Your task to perform on an android device: toggle pop-ups in chrome Image 0: 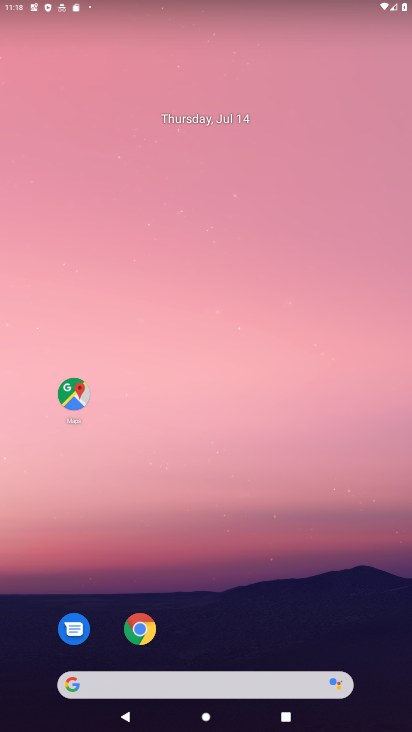
Step 0: press home button
Your task to perform on an android device: toggle pop-ups in chrome Image 1: 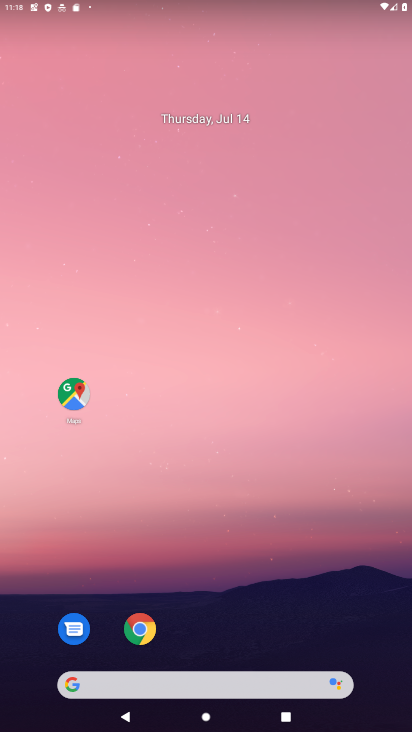
Step 1: click (136, 636)
Your task to perform on an android device: toggle pop-ups in chrome Image 2: 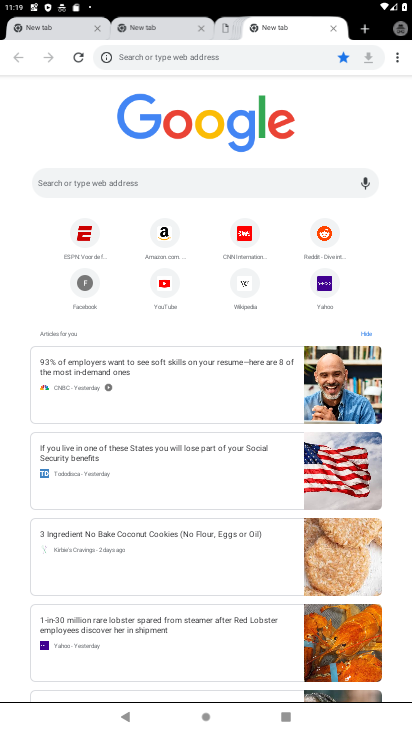
Step 2: drag from (395, 59) to (266, 262)
Your task to perform on an android device: toggle pop-ups in chrome Image 3: 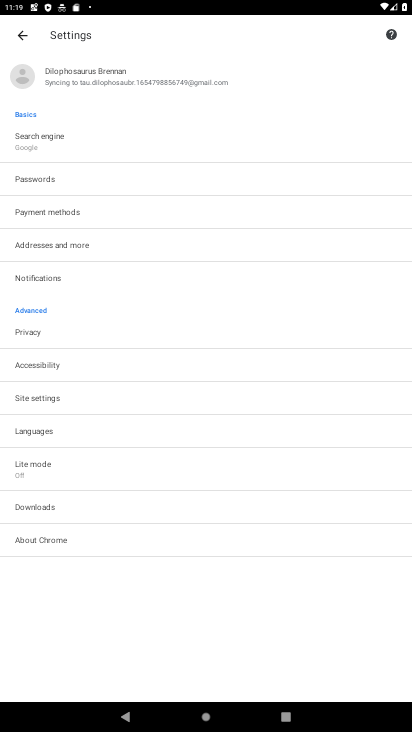
Step 3: click (13, 392)
Your task to perform on an android device: toggle pop-ups in chrome Image 4: 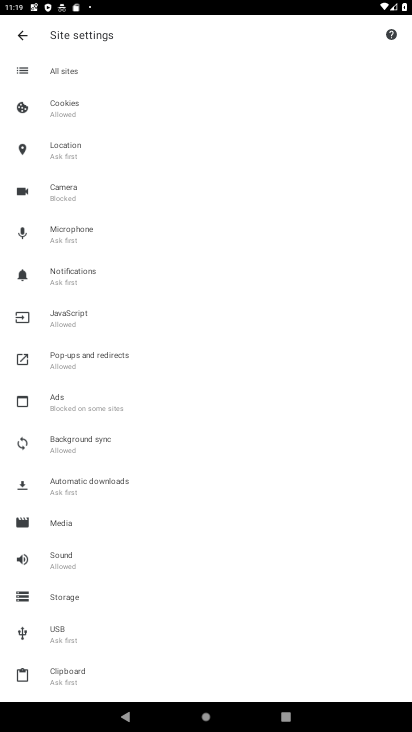
Step 4: click (55, 365)
Your task to perform on an android device: toggle pop-ups in chrome Image 5: 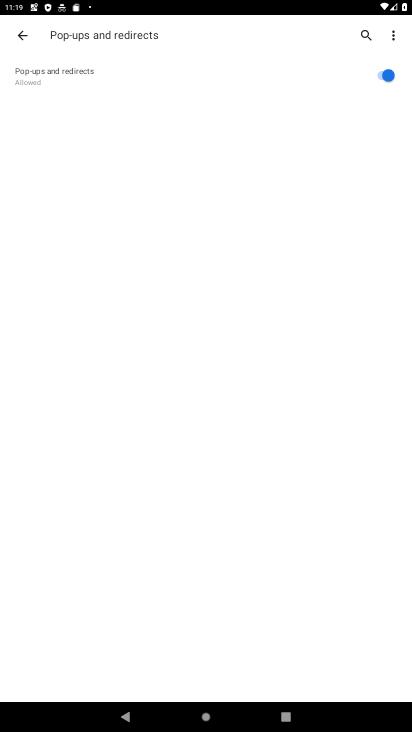
Step 5: click (383, 77)
Your task to perform on an android device: toggle pop-ups in chrome Image 6: 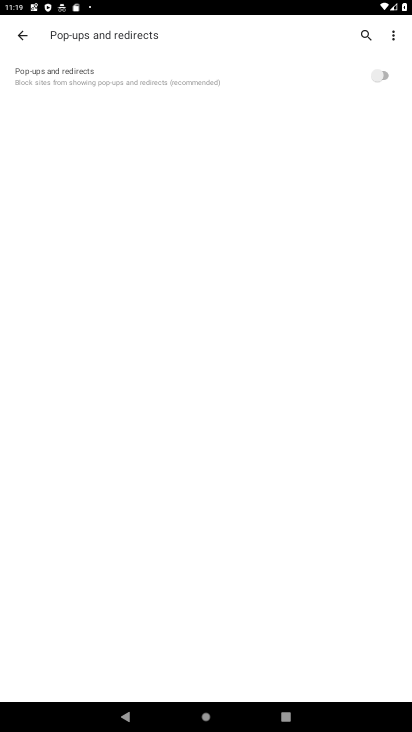
Step 6: task complete